Your task to perform on an android device: Go to display settings Image 0: 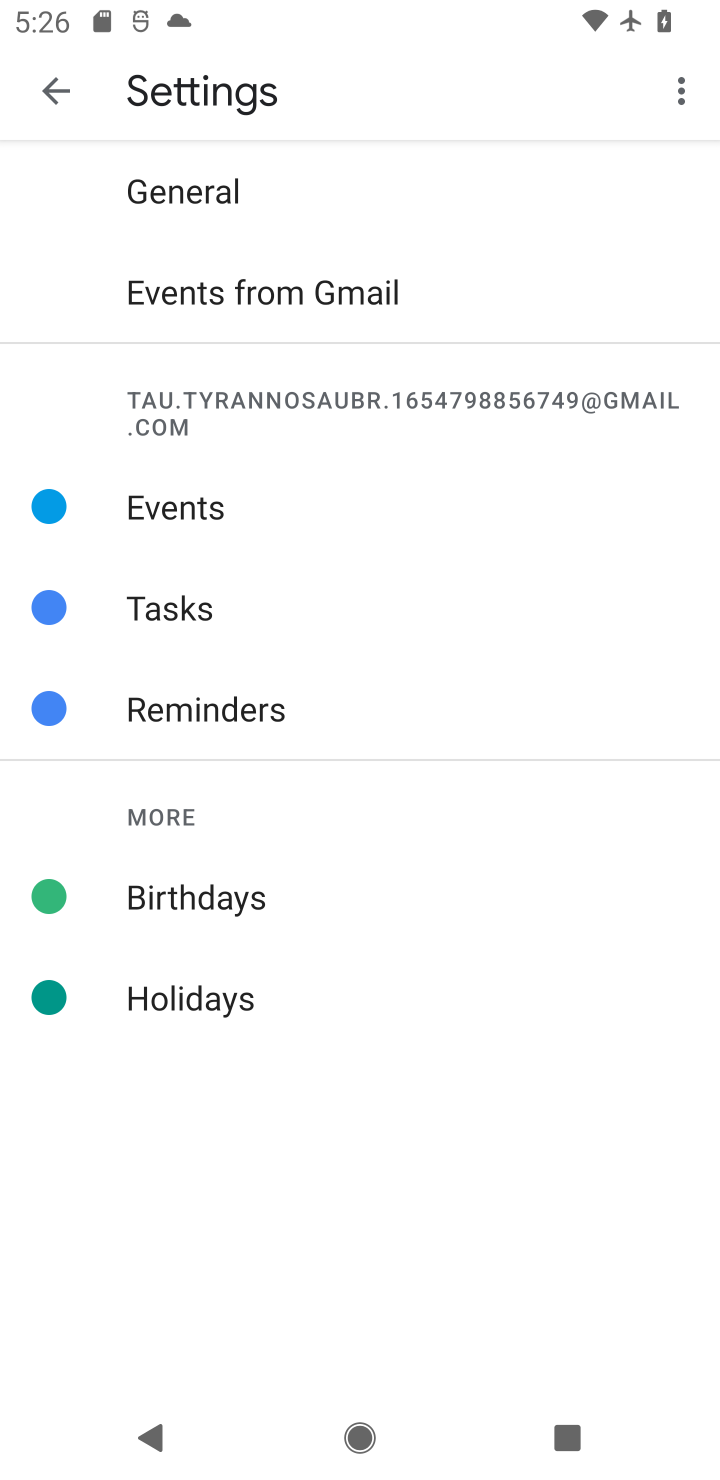
Step 0: press home button
Your task to perform on an android device: Go to display settings Image 1: 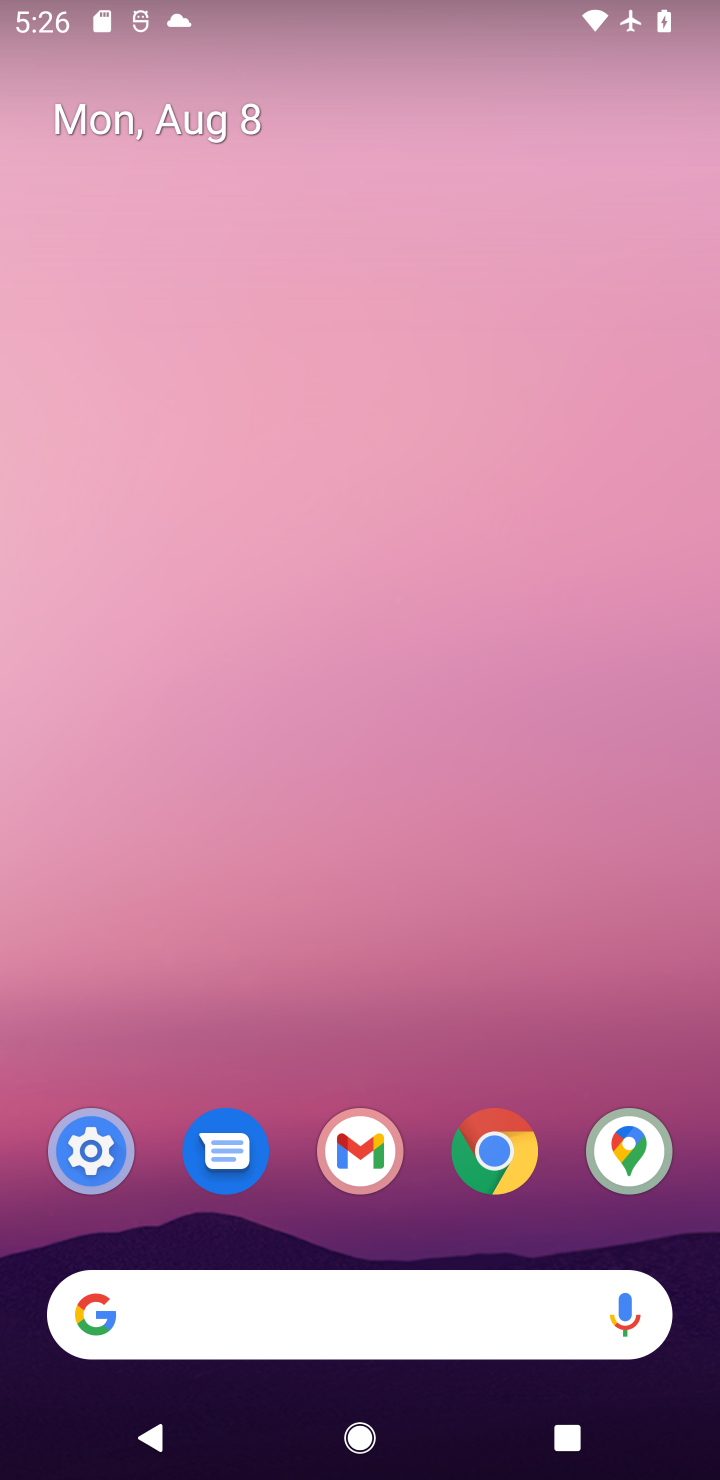
Step 1: click (90, 1167)
Your task to perform on an android device: Go to display settings Image 2: 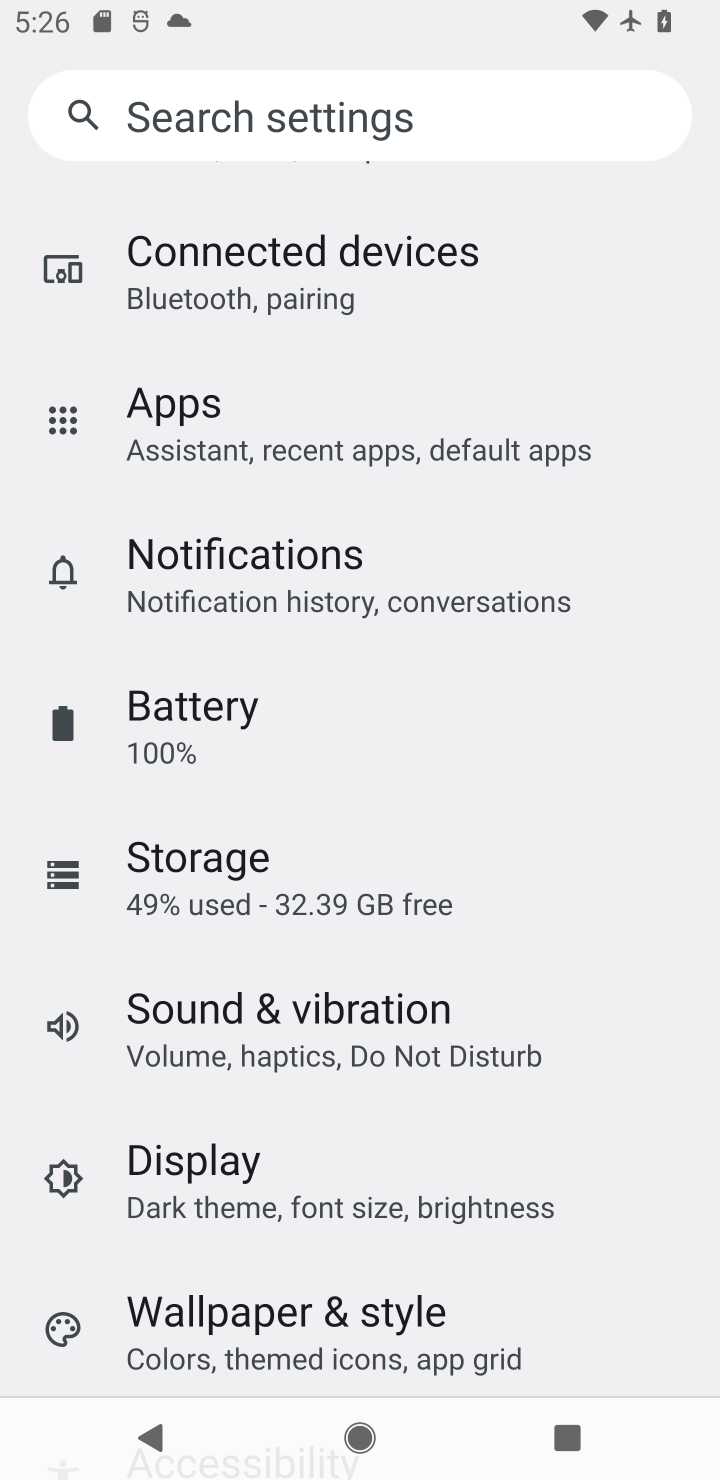
Step 2: click (300, 1154)
Your task to perform on an android device: Go to display settings Image 3: 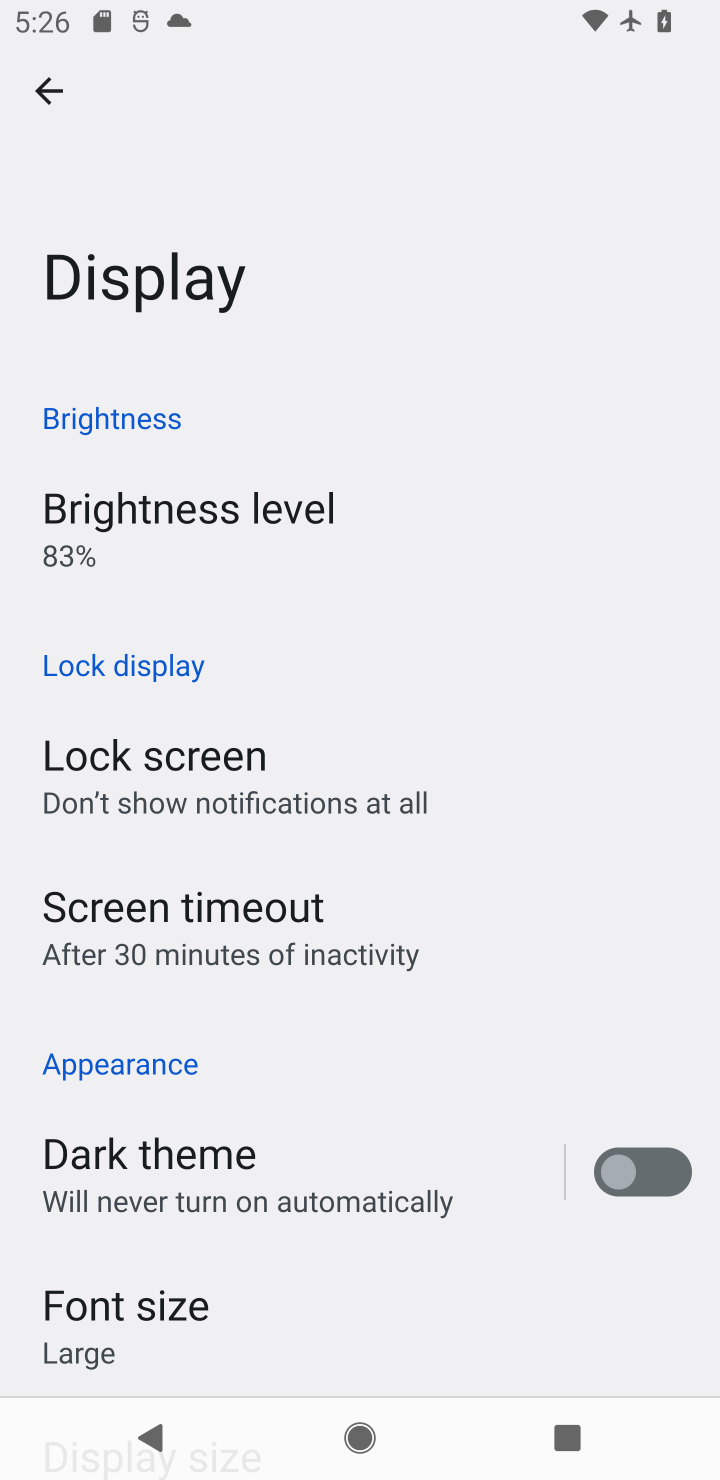
Step 3: task complete